Your task to perform on an android device: Turn on the flashlight Image 0: 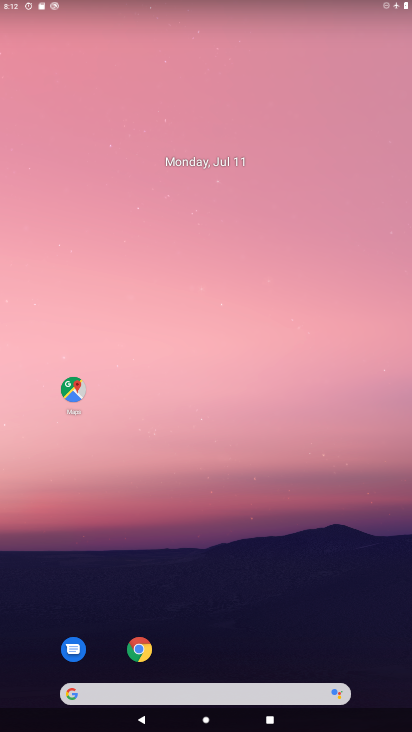
Step 0: drag from (170, 695) to (360, 144)
Your task to perform on an android device: Turn on the flashlight Image 1: 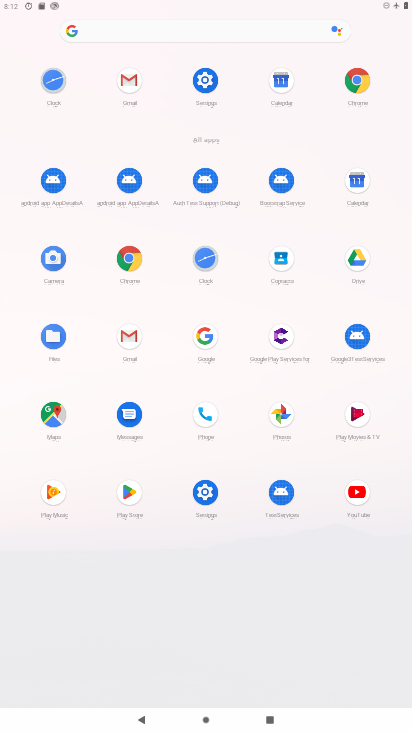
Step 1: click (204, 79)
Your task to perform on an android device: Turn on the flashlight Image 2: 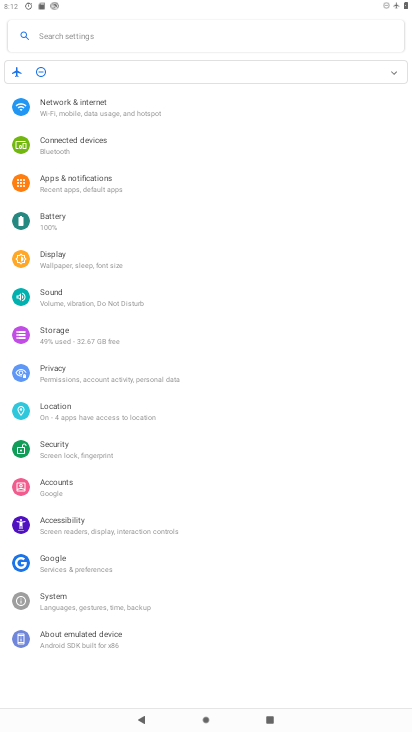
Step 2: click (45, 259)
Your task to perform on an android device: Turn on the flashlight Image 3: 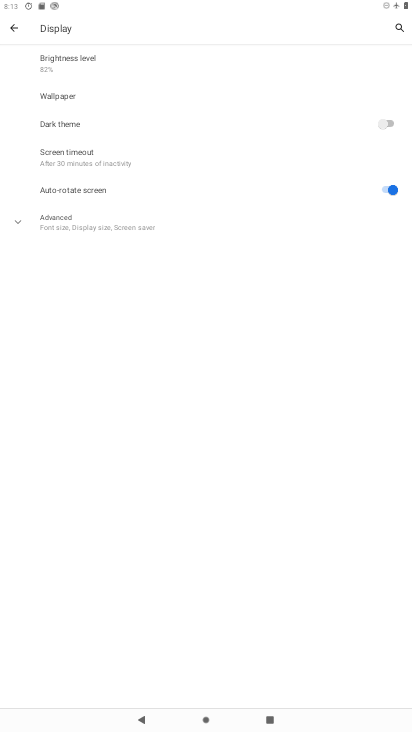
Step 3: click (74, 228)
Your task to perform on an android device: Turn on the flashlight Image 4: 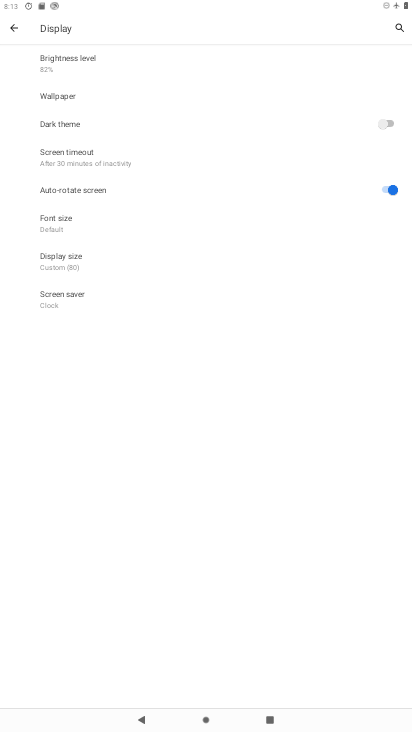
Step 4: task complete